Your task to perform on an android device: check android version Image 0: 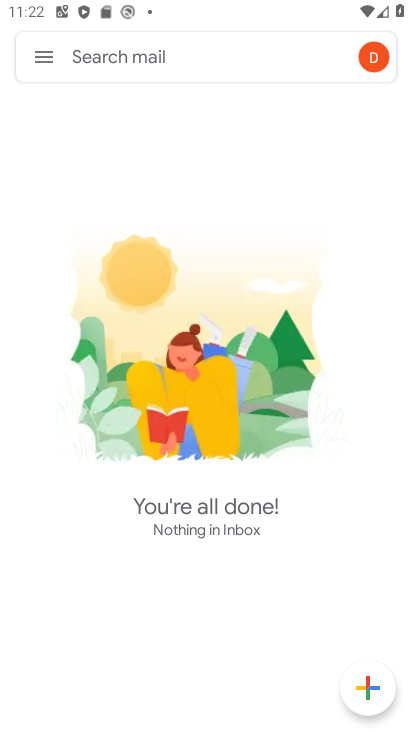
Step 0: press home button
Your task to perform on an android device: check android version Image 1: 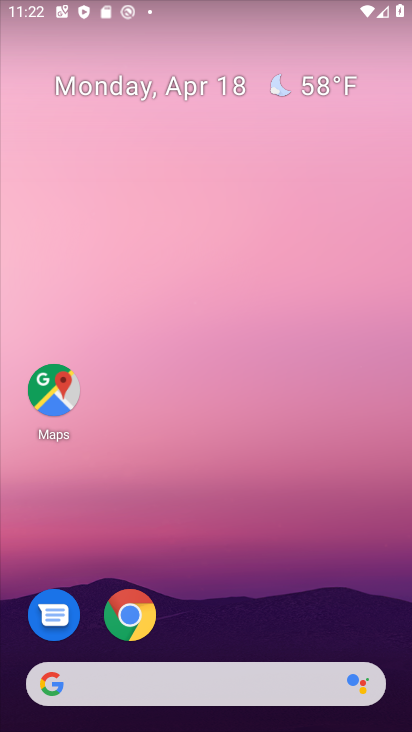
Step 1: drag from (375, 619) to (371, 196)
Your task to perform on an android device: check android version Image 2: 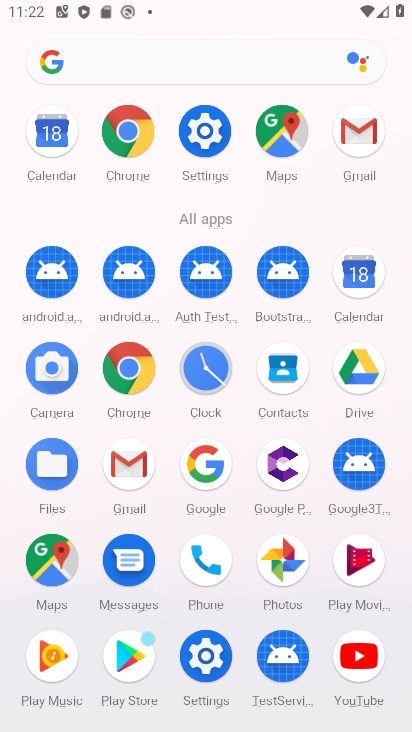
Step 2: click (205, 141)
Your task to perform on an android device: check android version Image 3: 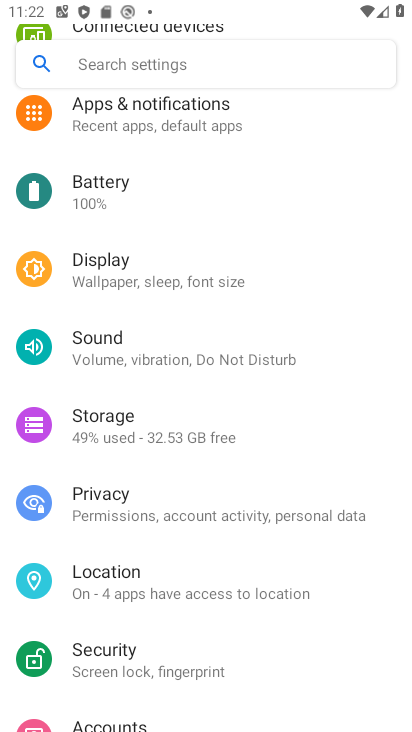
Step 3: drag from (365, 275) to (368, 412)
Your task to perform on an android device: check android version Image 4: 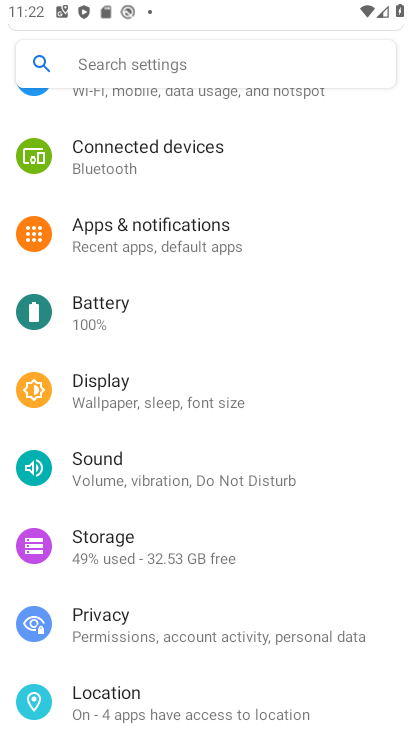
Step 4: drag from (363, 284) to (351, 495)
Your task to perform on an android device: check android version Image 5: 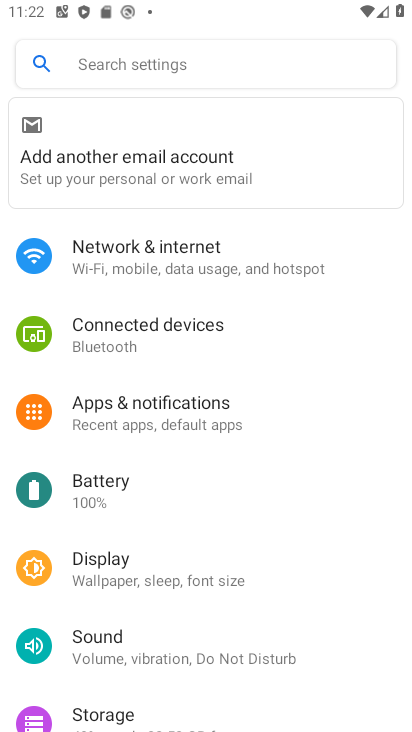
Step 5: drag from (332, 556) to (349, 353)
Your task to perform on an android device: check android version Image 6: 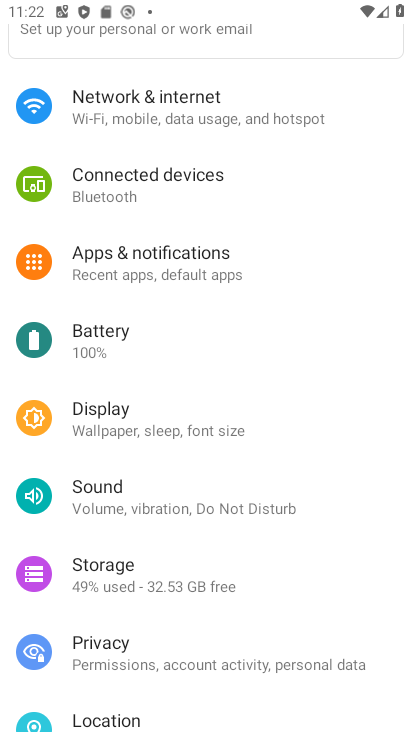
Step 6: drag from (350, 577) to (359, 417)
Your task to perform on an android device: check android version Image 7: 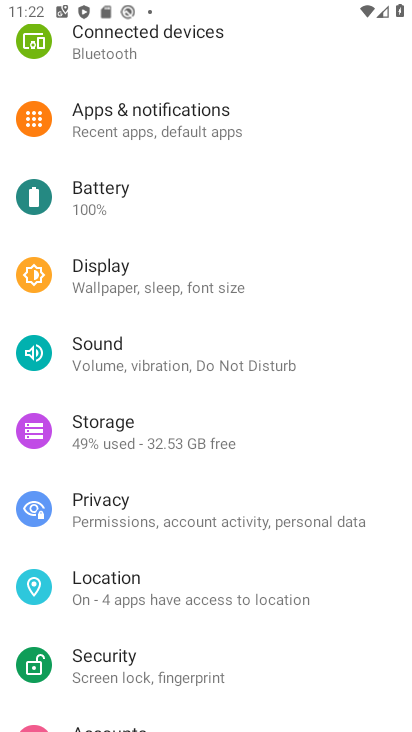
Step 7: drag from (352, 534) to (344, 336)
Your task to perform on an android device: check android version Image 8: 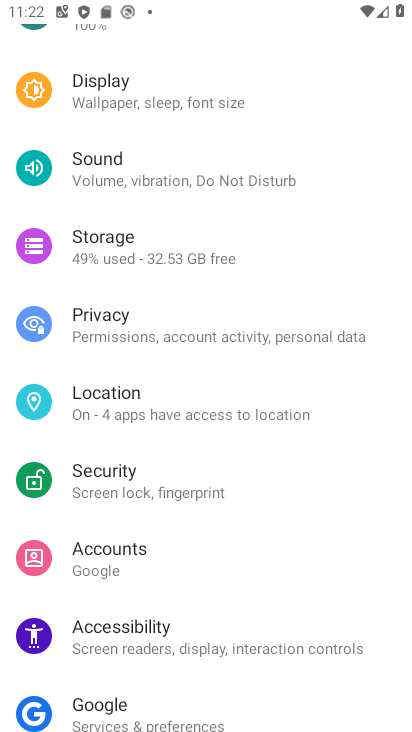
Step 8: drag from (350, 549) to (354, 355)
Your task to perform on an android device: check android version Image 9: 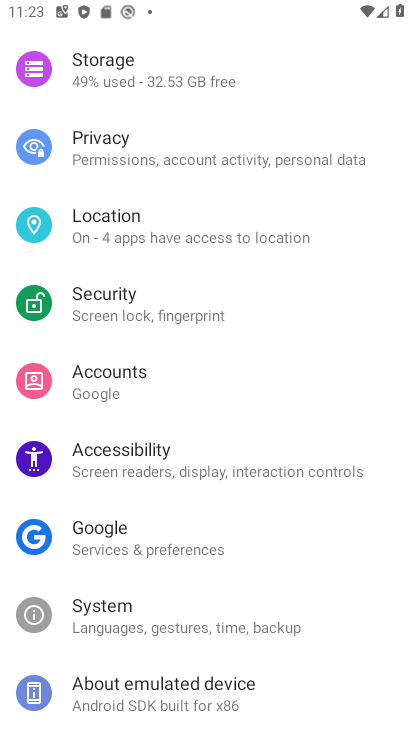
Step 9: drag from (367, 486) to (364, 410)
Your task to perform on an android device: check android version Image 10: 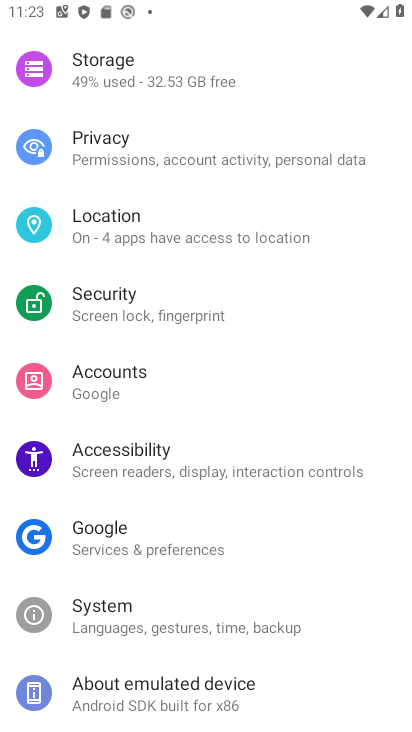
Step 10: click (269, 620)
Your task to perform on an android device: check android version Image 11: 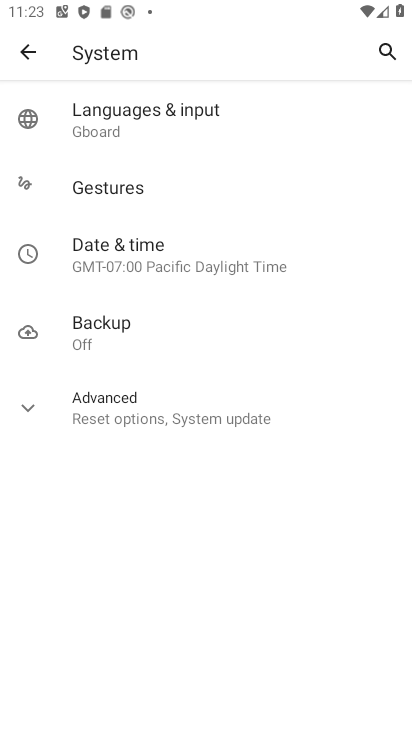
Step 11: click (173, 412)
Your task to perform on an android device: check android version Image 12: 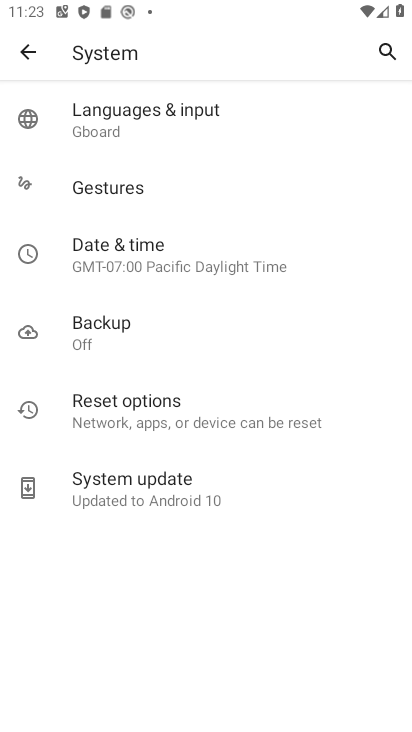
Step 12: click (167, 493)
Your task to perform on an android device: check android version Image 13: 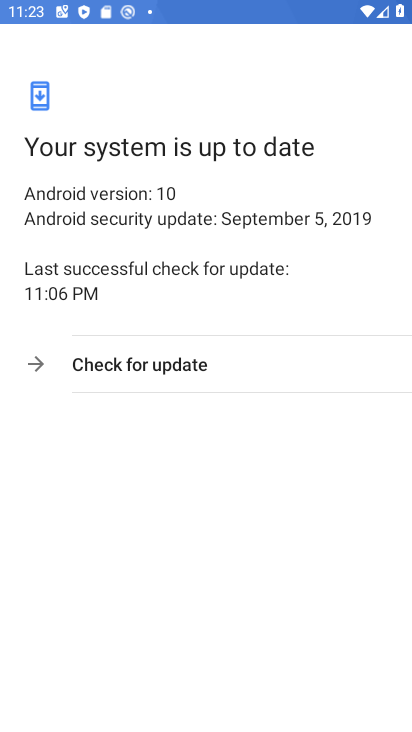
Step 13: task complete